Your task to perform on an android device: change your default location settings in chrome Image 0: 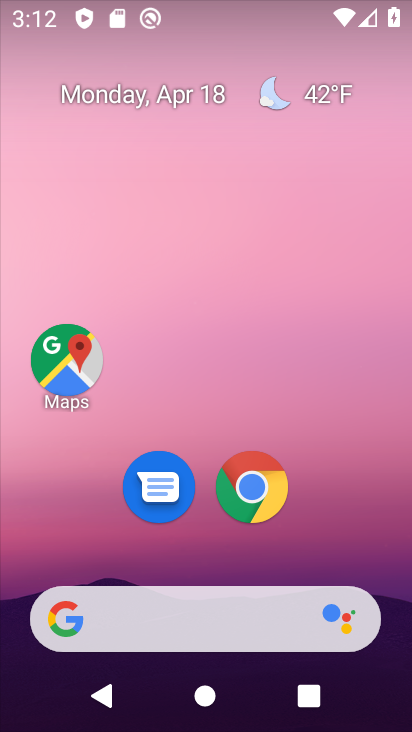
Step 0: click (258, 499)
Your task to perform on an android device: change your default location settings in chrome Image 1: 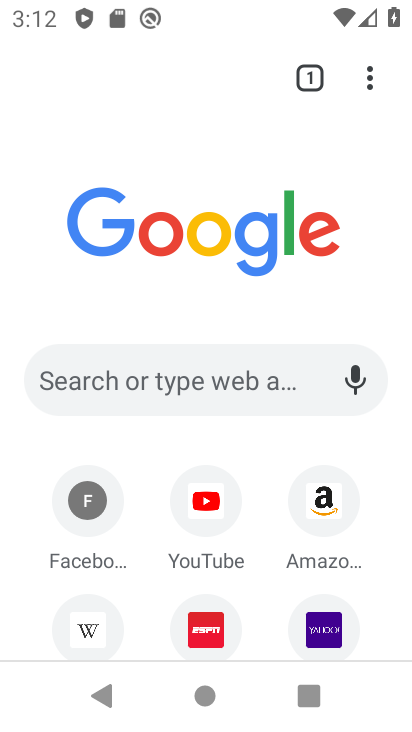
Step 1: click (368, 74)
Your task to perform on an android device: change your default location settings in chrome Image 2: 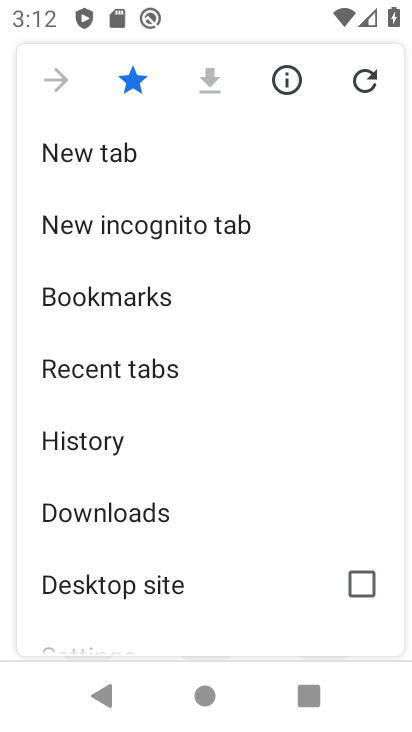
Step 2: drag from (240, 551) to (235, 169)
Your task to perform on an android device: change your default location settings in chrome Image 3: 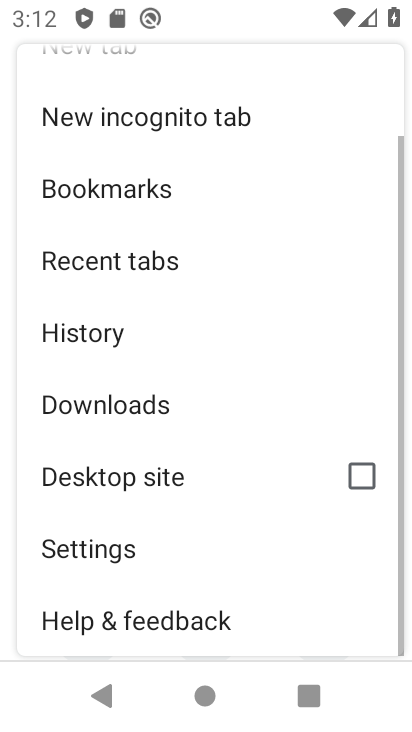
Step 3: click (167, 553)
Your task to perform on an android device: change your default location settings in chrome Image 4: 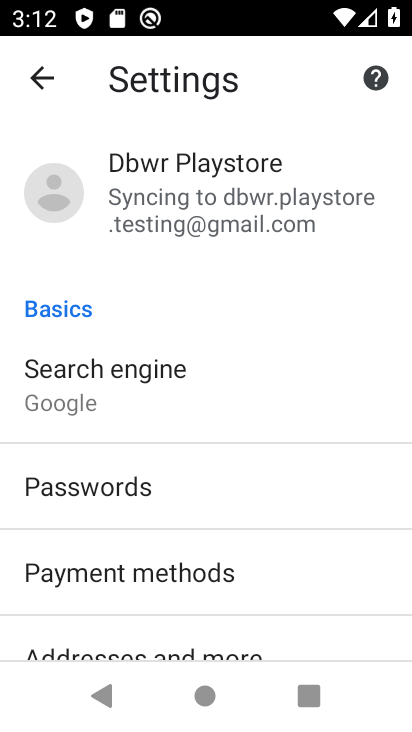
Step 4: drag from (276, 359) to (259, 136)
Your task to perform on an android device: change your default location settings in chrome Image 5: 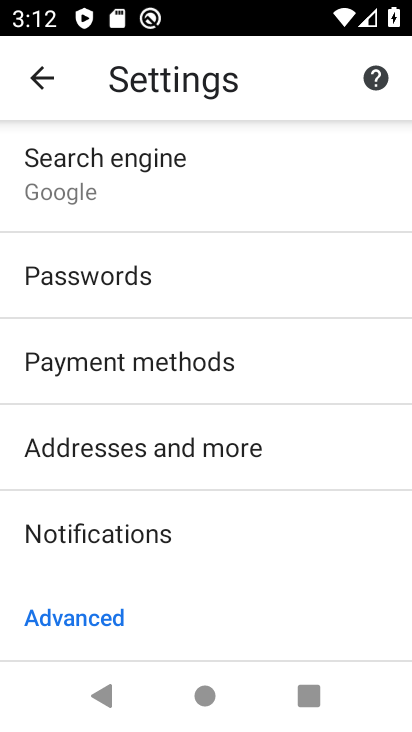
Step 5: drag from (231, 608) to (222, 174)
Your task to perform on an android device: change your default location settings in chrome Image 6: 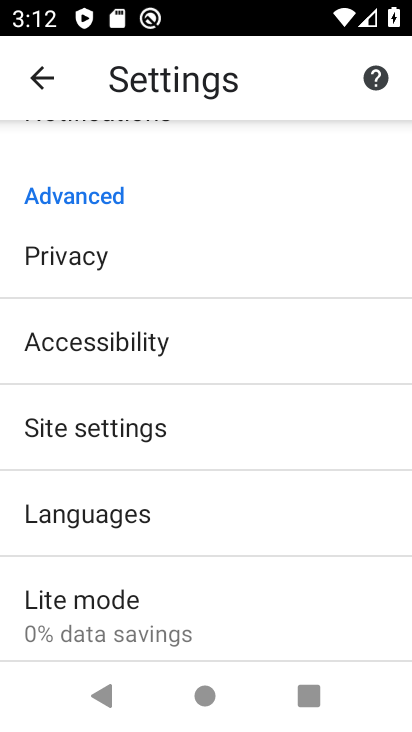
Step 6: click (193, 439)
Your task to perform on an android device: change your default location settings in chrome Image 7: 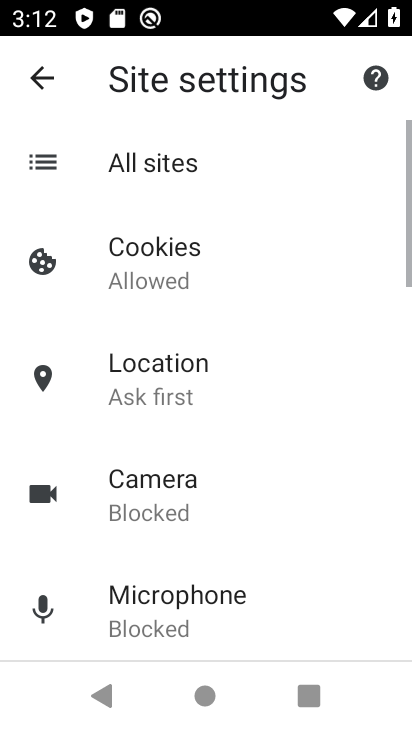
Step 7: click (207, 386)
Your task to perform on an android device: change your default location settings in chrome Image 8: 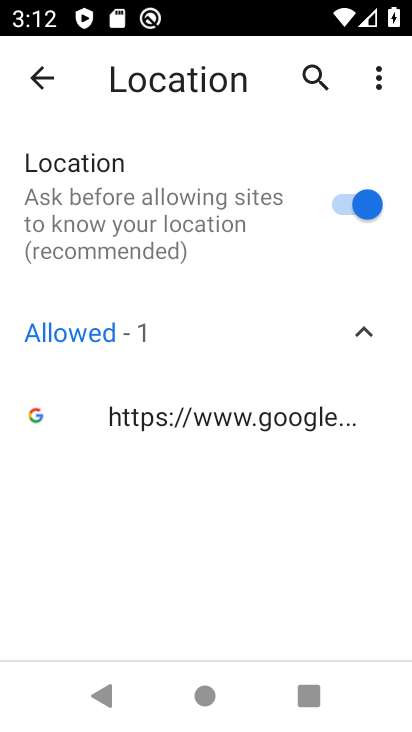
Step 8: click (349, 204)
Your task to perform on an android device: change your default location settings in chrome Image 9: 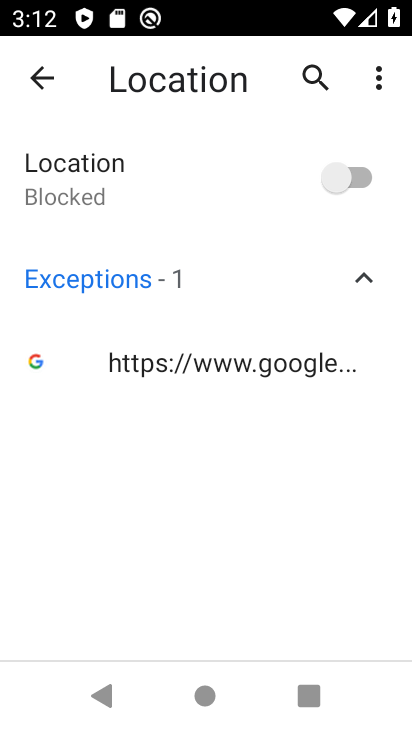
Step 9: task complete